Your task to perform on an android device: turn on showing notifications on the lock screen Image 0: 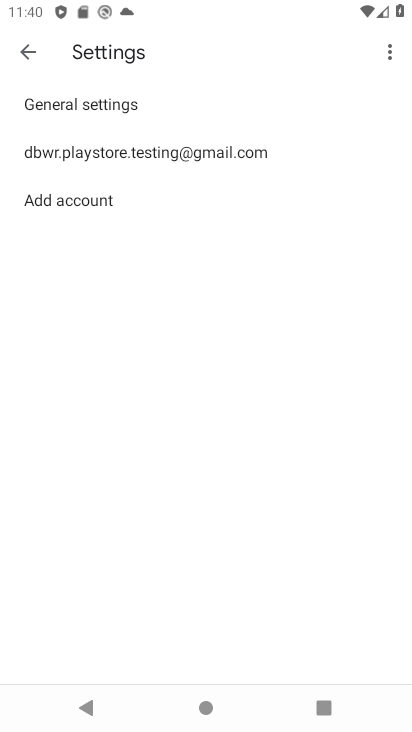
Step 0: press home button
Your task to perform on an android device: turn on showing notifications on the lock screen Image 1: 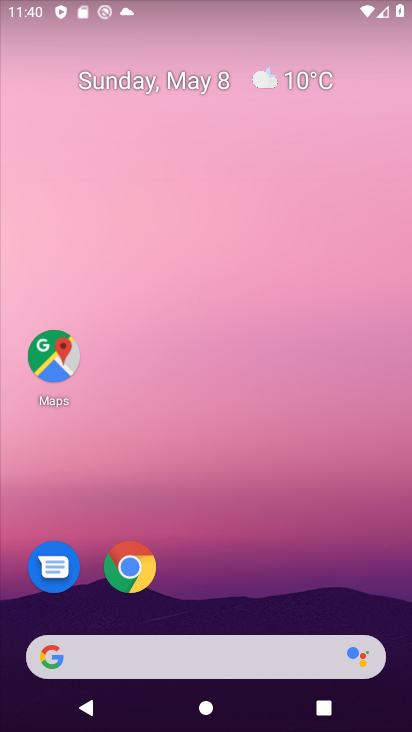
Step 1: drag from (242, 432) to (289, 42)
Your task to perform on an android device: turn on showing notifications on the lock screen Image 2: 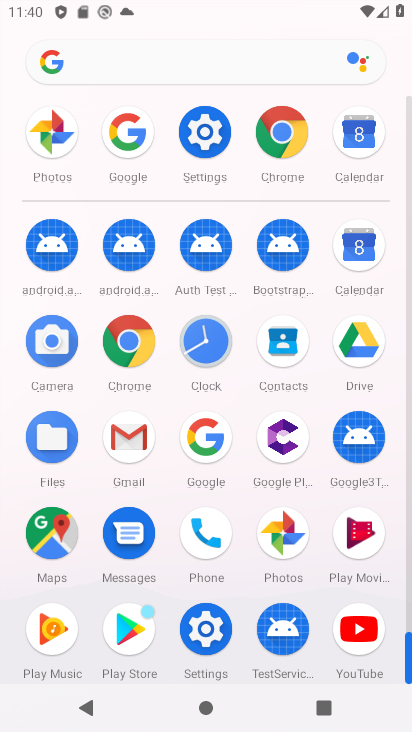
Step 2: click (213, 150)
Your task to perform on an android device: turn on showing notifications on the lock screen Image 3: 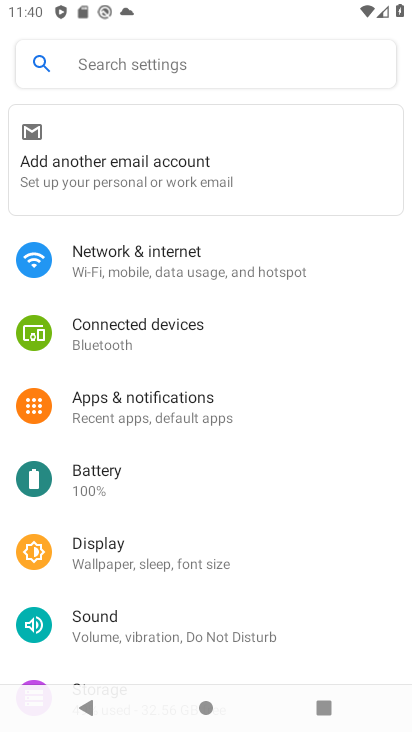
Step 3: click (135, 423)
Your task to perform on an android device: turn on showing notifications on the lock screen Image 4: 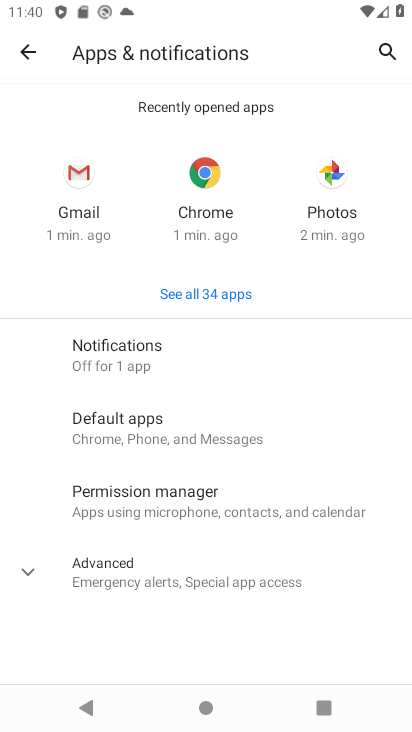
Step 4: click (153, 343)
Your task to perform on an android device: turn on showing notifications on the lock screen Image 5: 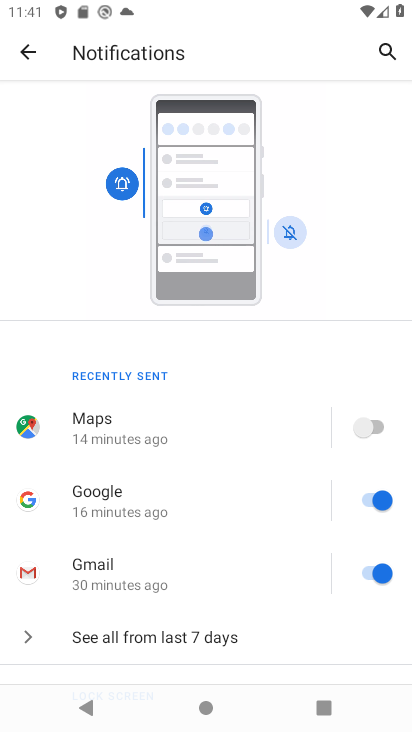
Step 5: drag from (163, 550) to (198, 204)
Your task to perform on an android device: turn on showing notifications on the lock screen Image 6: 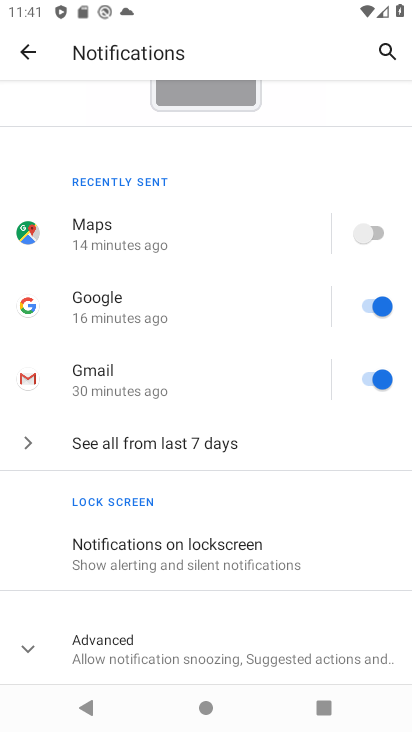
Step 6: drag from (215, 511) to (239, 394)
Your task to perform on an android device: turn on showing notifications on the lock screen Image 7: 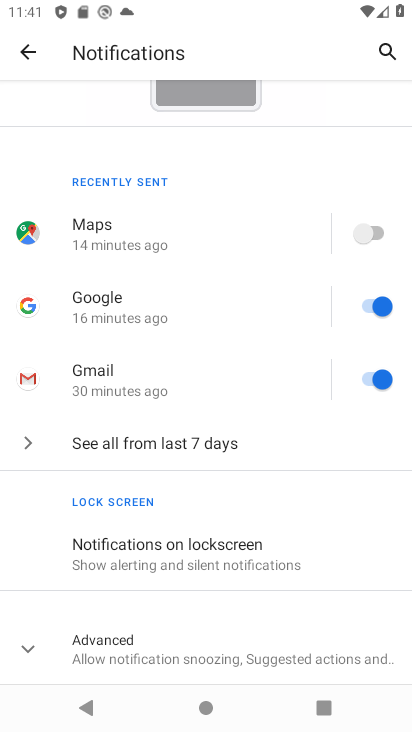
Step 7: click (190, 537)
Your task to perform on an android device: turn on showing notifications on the lock screen Image 8: 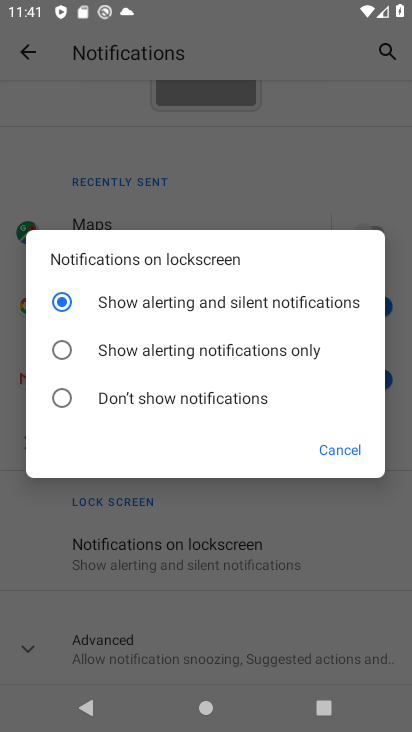
Step 8: task complete